Your task to perform on an android device: turn smart compose on in the gmail app Image 0: 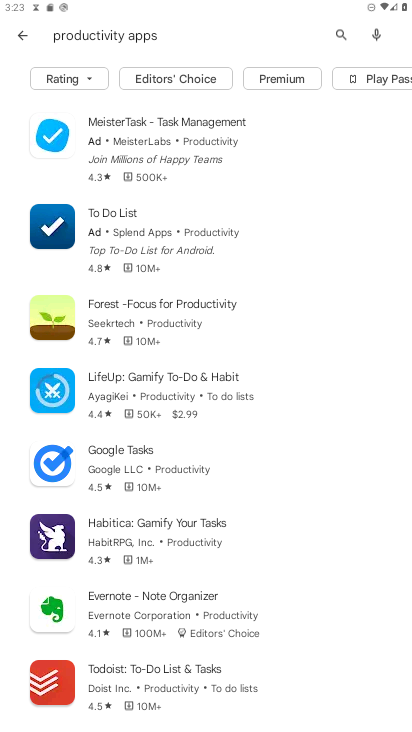
Step 0: press home button
Your task to perform on an android device: turn smart compose on in the gmail app Image 1: 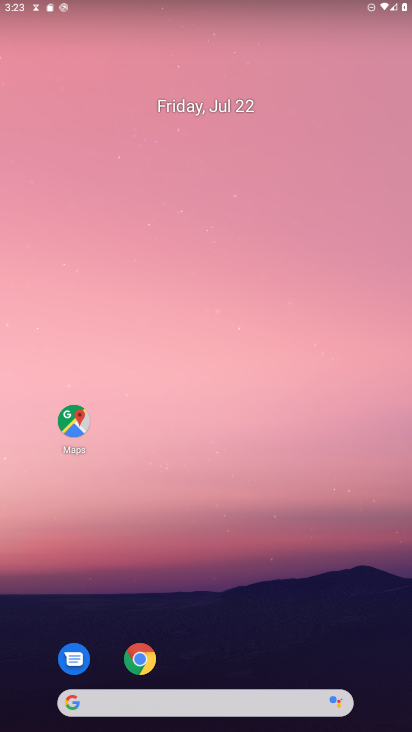
Step 1: drag from (250, 634) to (326, 32)
Your task to perform on an android device: turn smart compose on in the gmail app Image 2: 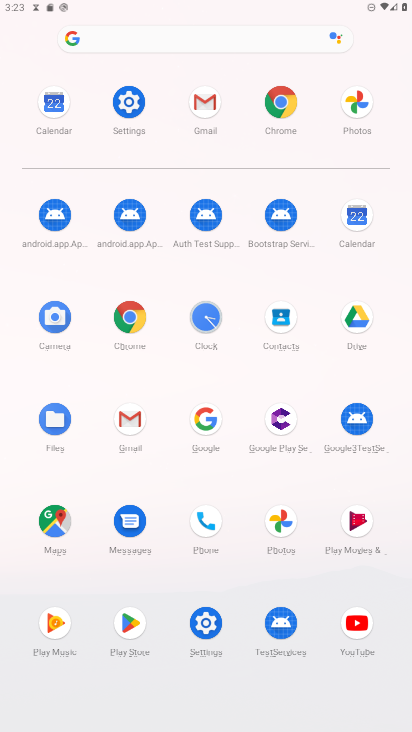
Step 2: click (209, 95)
Your task to perform on an android device: turn smart compose on in the gmail app Image 3: 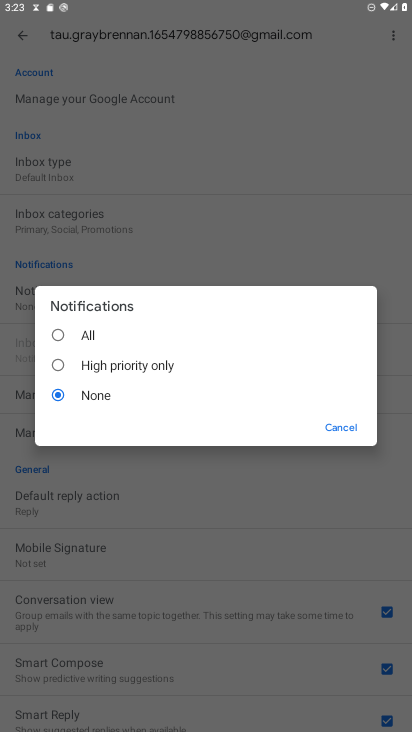
Step 3: click (349, 433)
Your task to perform on an android device: turn smart compose on in the gmail app Image 4: 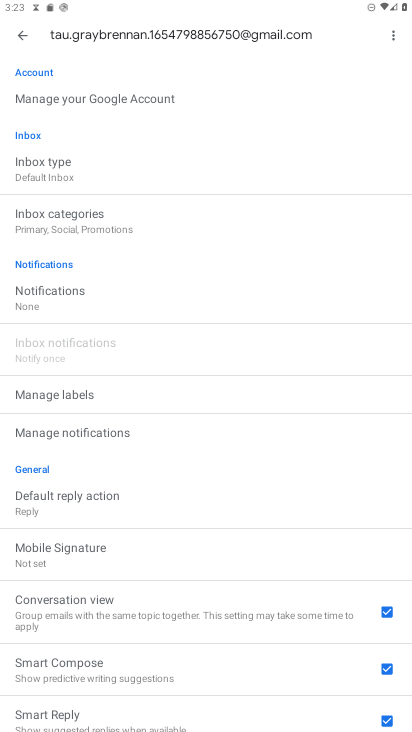
Step 4: task complete